Your task to perform on an android device: check storage Image 0: 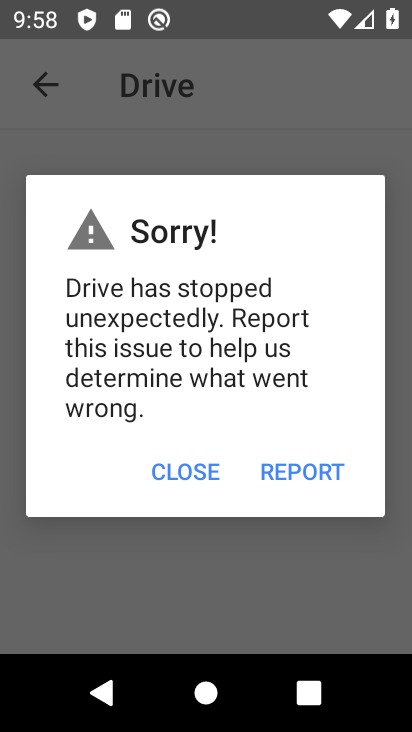
Step 0: press home button
Your task to perform on an android device: check storage Image 1: 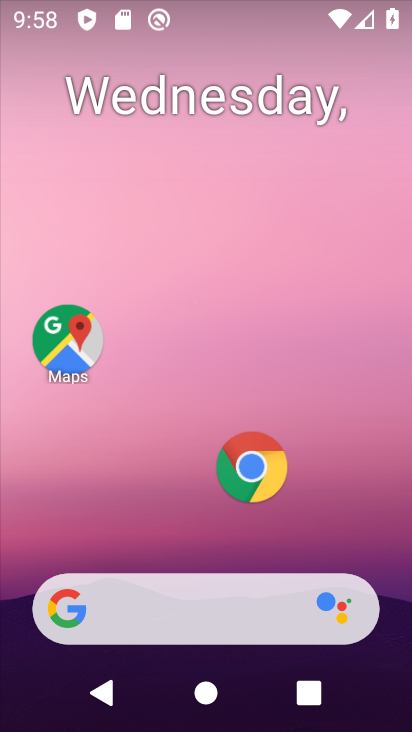
Step 1: drag from (338, 555) to (218, 149)
Your task to perform on an android device: check storage Image 2: 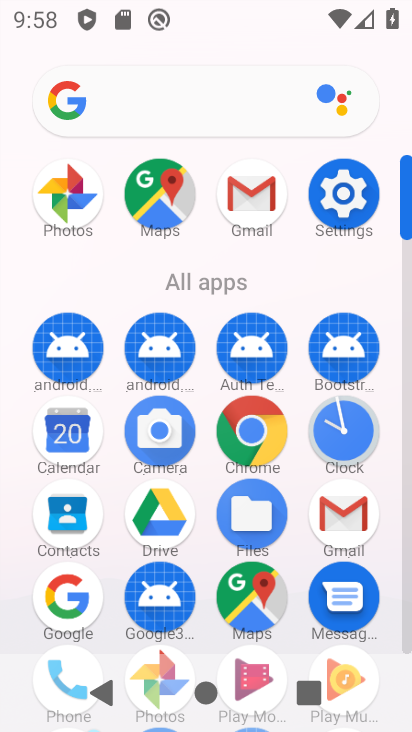
Step 2: click (351, 205)
Your task to perform on an android device: check storage Image 3: 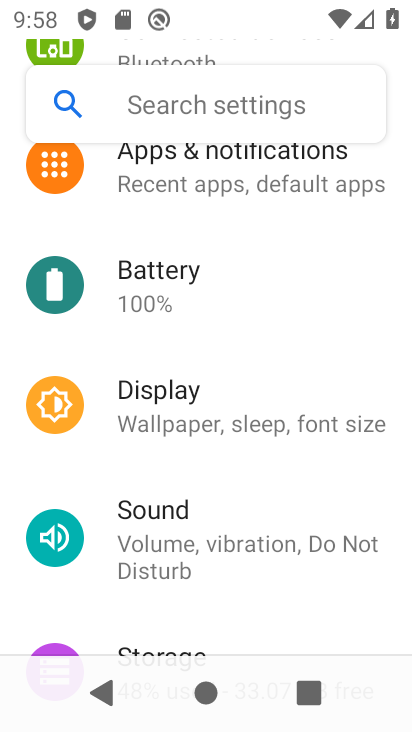
Step 3: drag from (256, 467) to (236, 364)
Your task to perform on an android device: check storage Image 4: 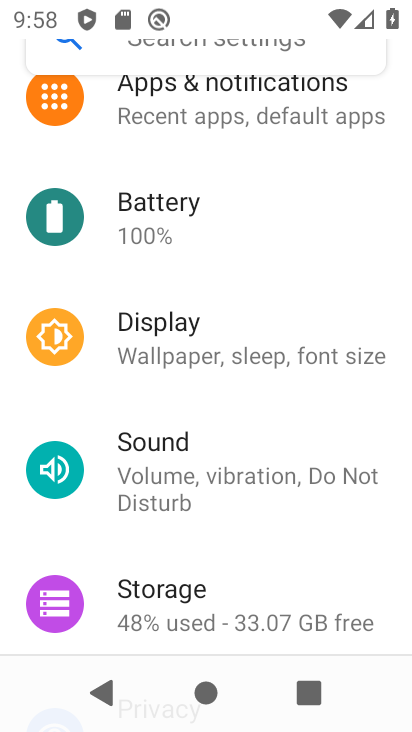
Step 4: click (193, 587)
Your task to perform on an android device: check storage Image 5: 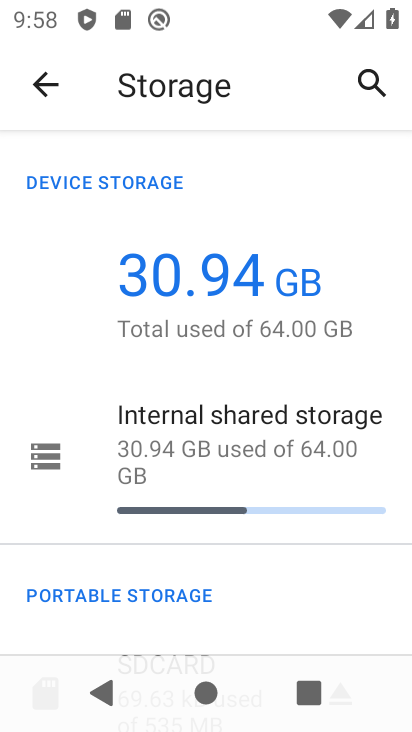
Step 5: task complete